Your task to perform on an android device: open app "Paramount+ | Peak Streaming" Image 0: 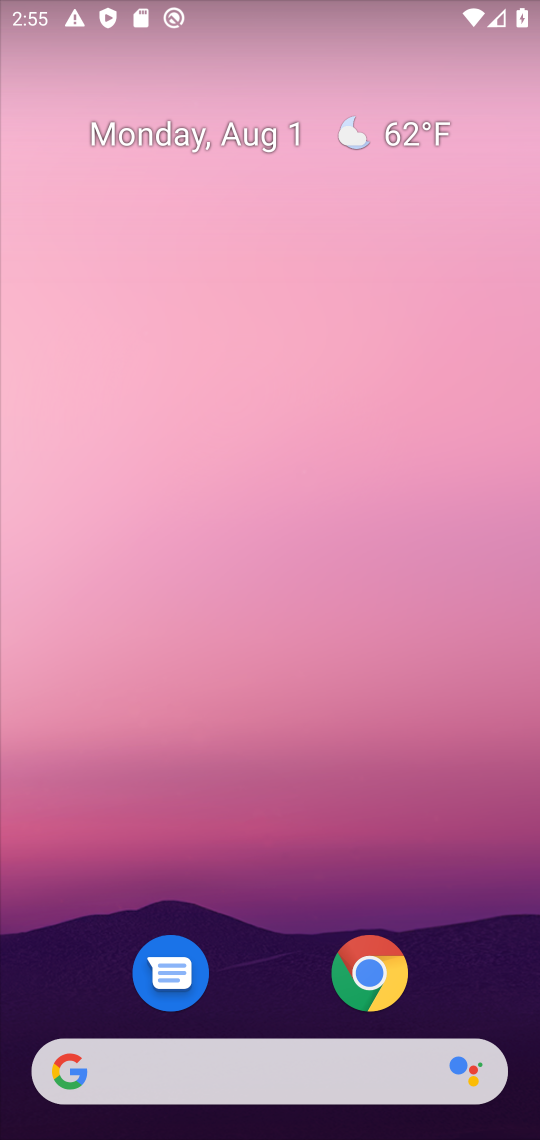
Step 0: drag from (250, 825) to (300, 201)
Your task to perform on an android device: open app "Paramount+ | Peak Streaming" Image 1: 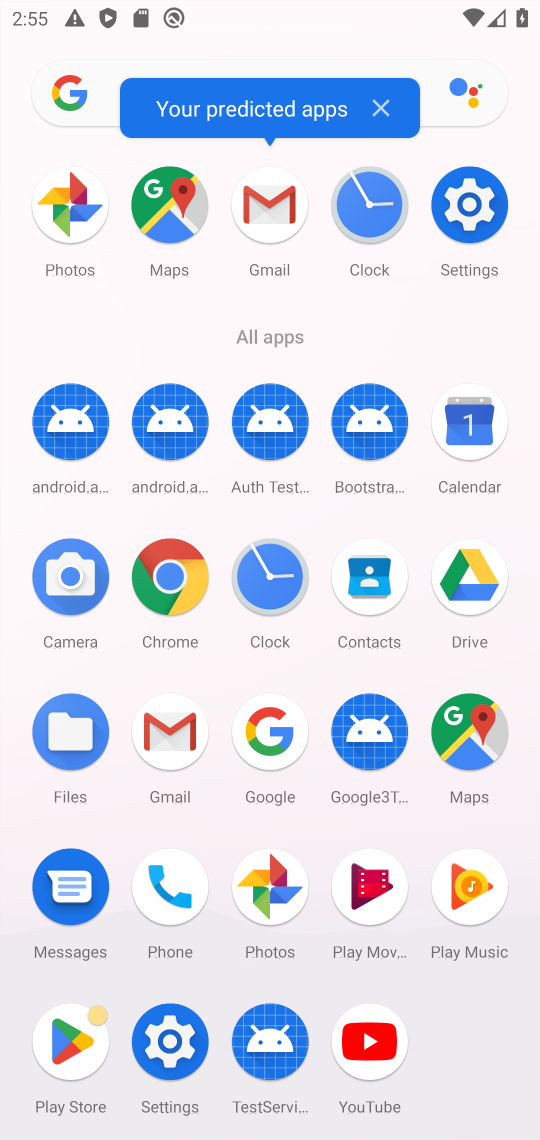
Step 1: click (70, 1036)
Your task to perform on an android device: open app "Paramount+ | Peak Streaming" Image 2: 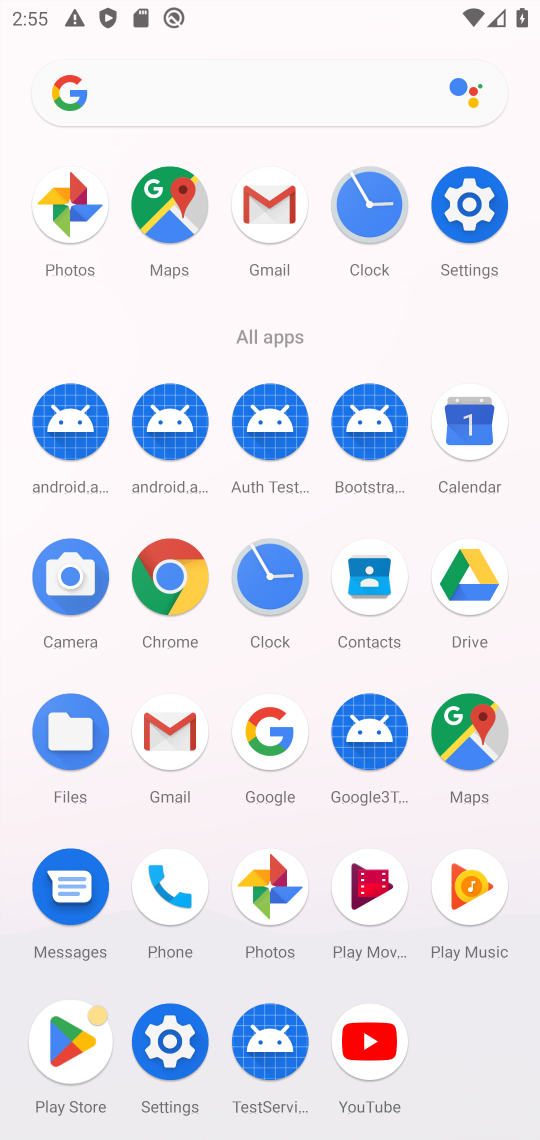
Step 2: click (71, 1038)
Your task to perform on an android device: open app "Paramount+ | Peak Streaming" Image 3: 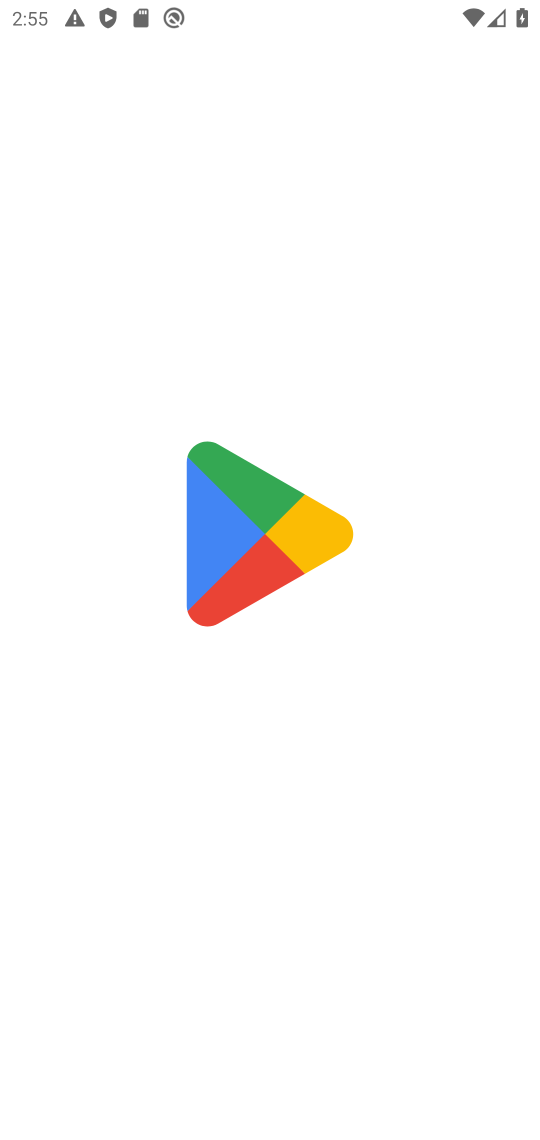
Step 3: click (67, 1041)
Your task to perform on an android device: open app "Paramount+ | Peak Streaming" Image 4: 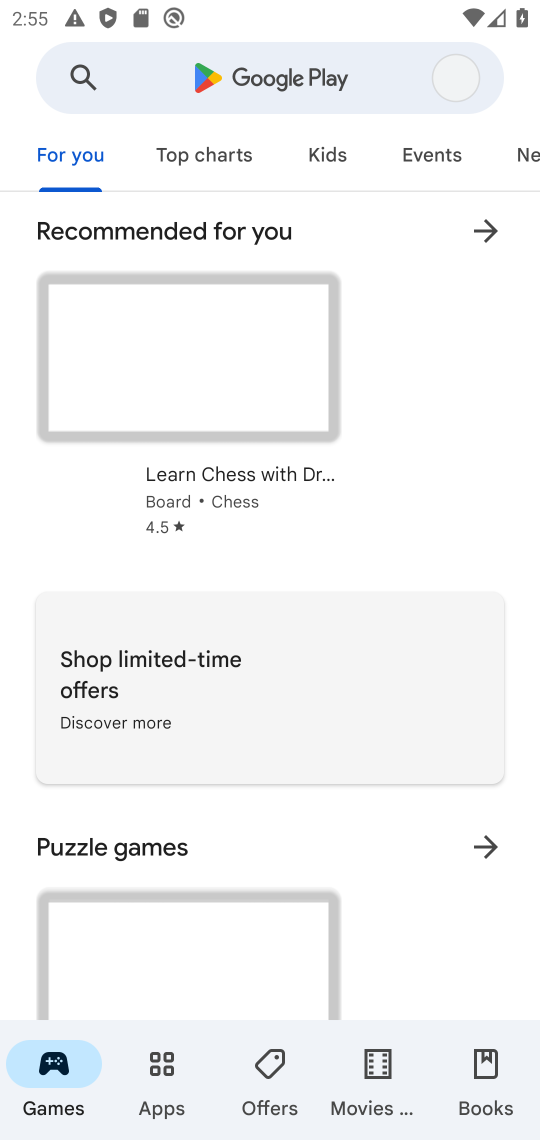
Step 4: click (197, 69)
Your task to perform on an android device: open app "Paramount+ | Peak Streaming" Image 5: 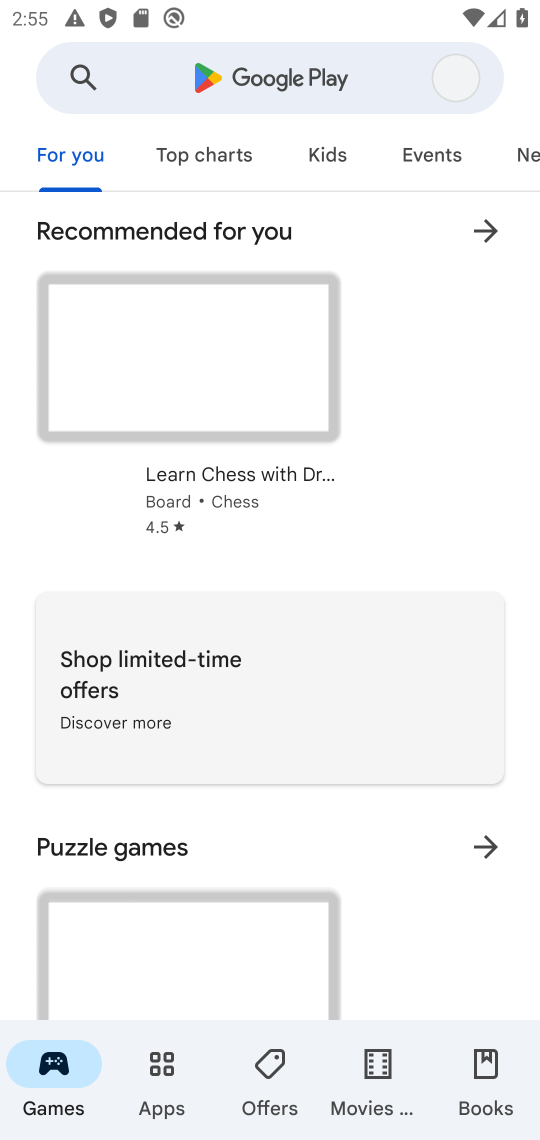
Step 5: click (197, 71)
Your task to perform on an android device: open app "Paramount+ | Peak Streaming" Image 6: 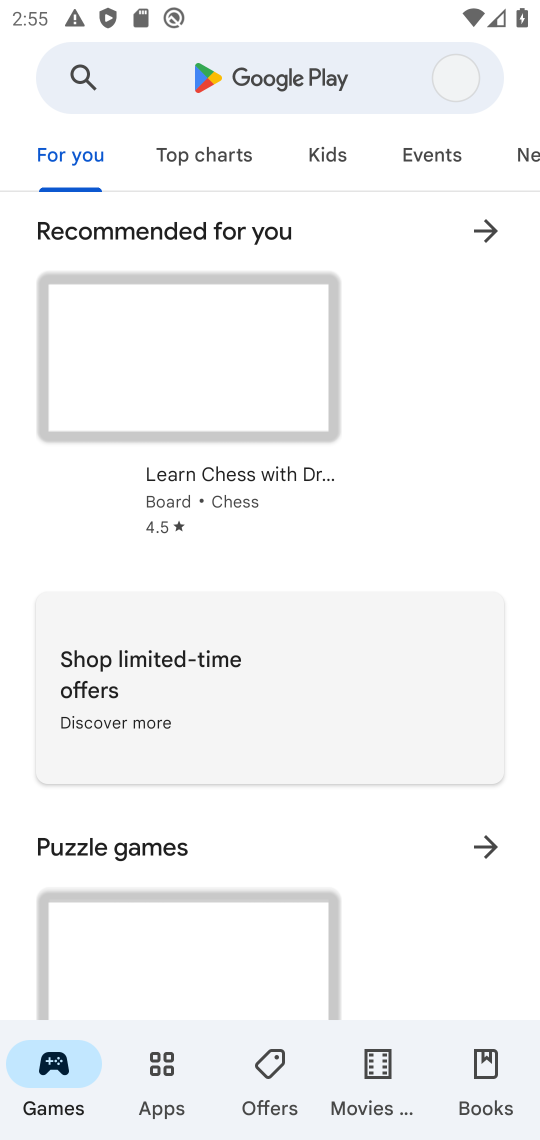
Step 6: click (205, 72)
Your task to perform on an android device: open app "Paramount+ | Peak Streaming" Image 7: 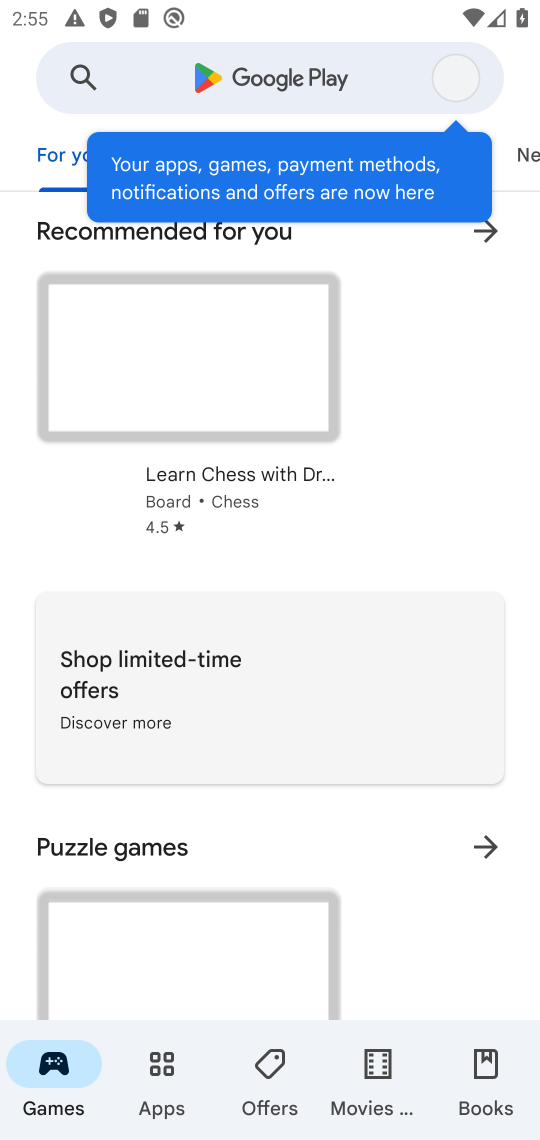
Step 7: click (214, 65)
Your task to perform on an android device: open app "Paramount+ | Peak Streaming" Image 8: 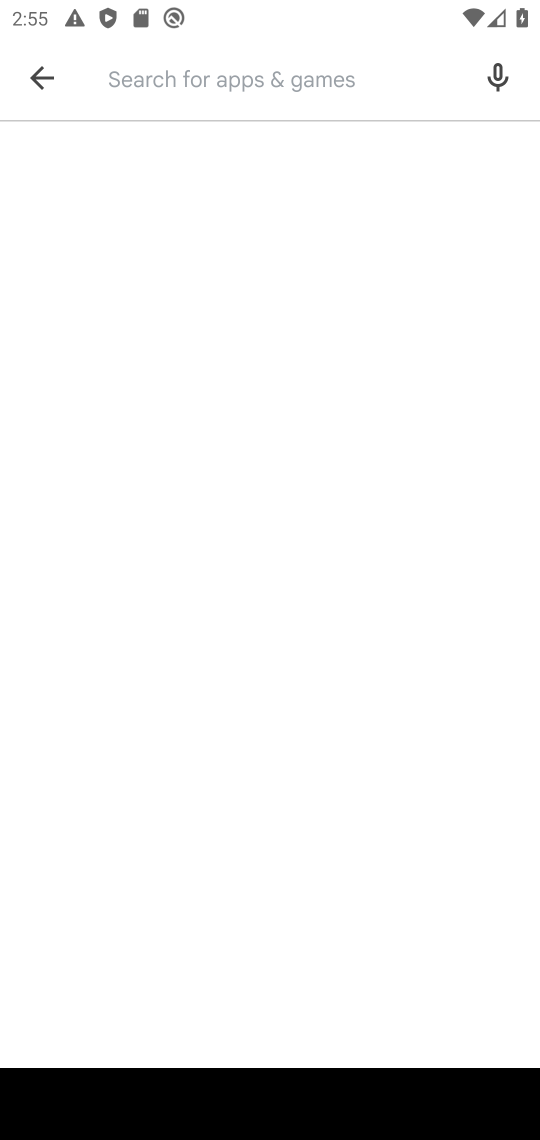
Step 8: type "paramount"
Your task to perform on an android device: open app "Paramount+ | Peak Streaming" Image 9: 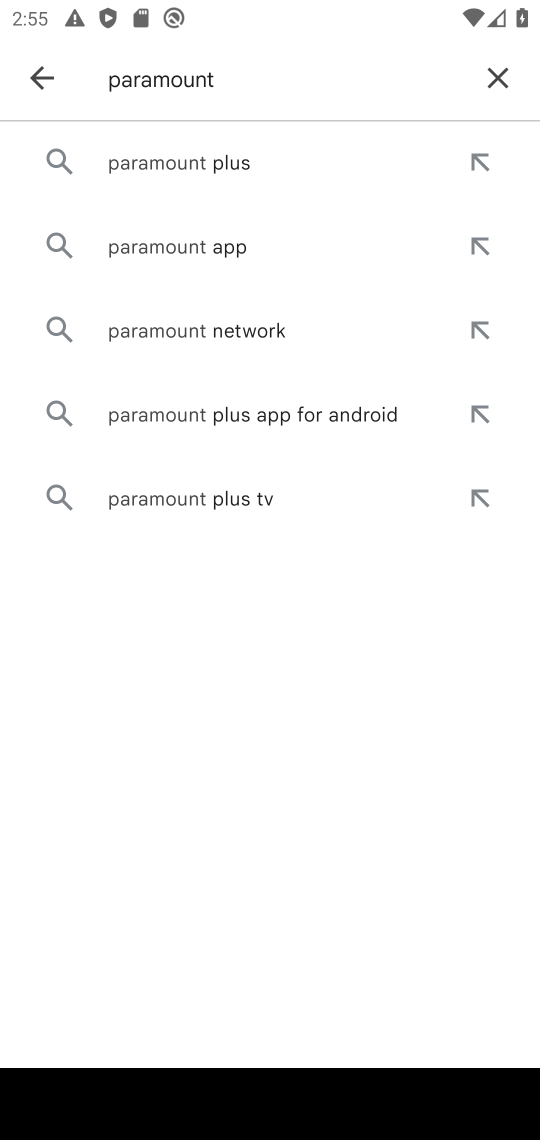
Step 9: click (175, 159)
Your task to perform on an android device: open app "Paramount+ | Peak Streaming" Image 10: 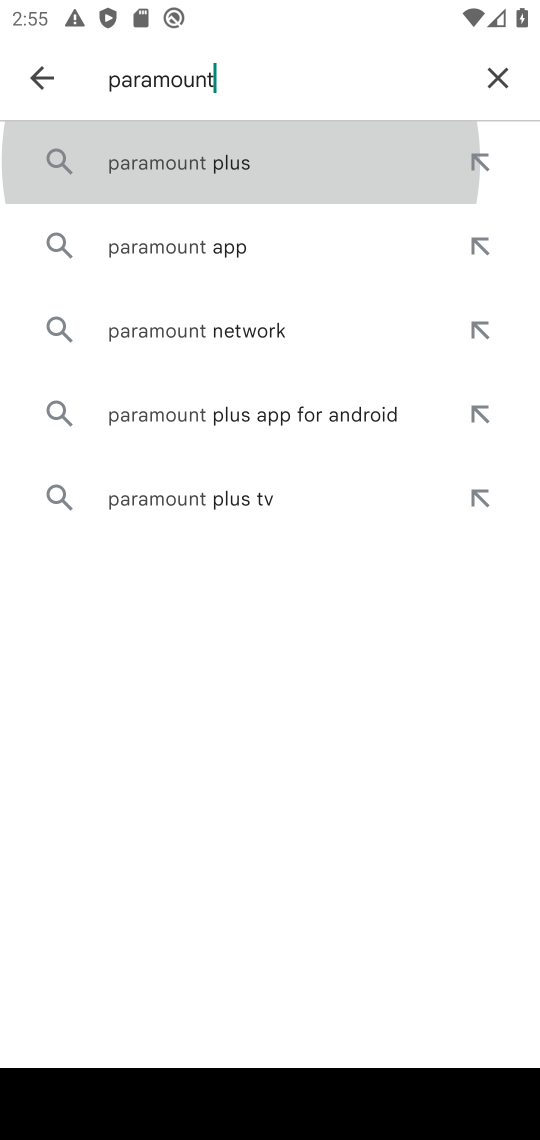
Step 10: click (176, 160)
Your task to perform on an android device: open app "Paramount+ | Peak Streaming" Image 11: 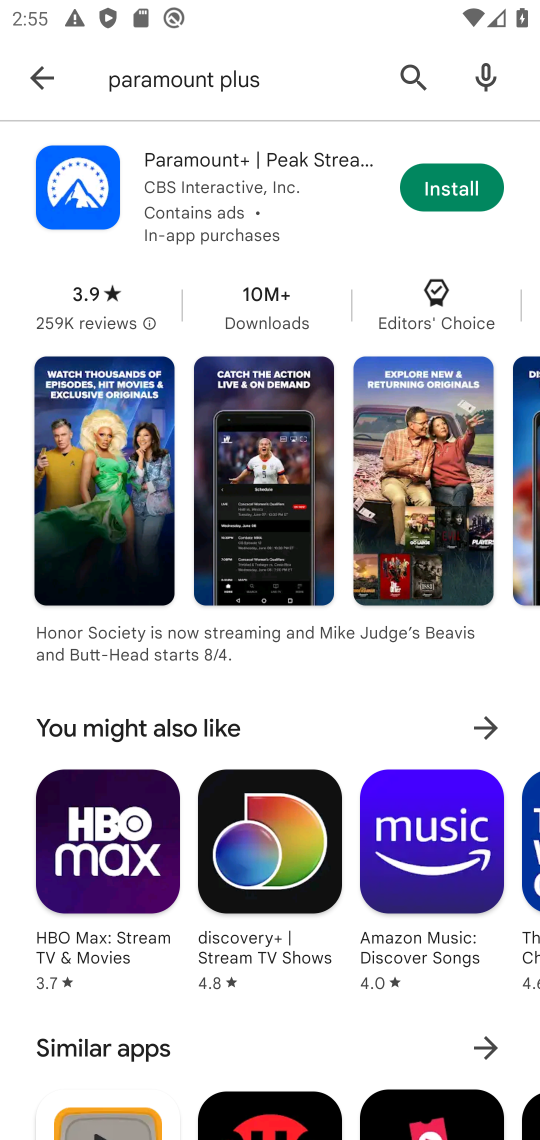
Step 11: click (436, 183)
Your task to perform on an android device: open app "Paramount+ | Peak Streaming" Image 12: 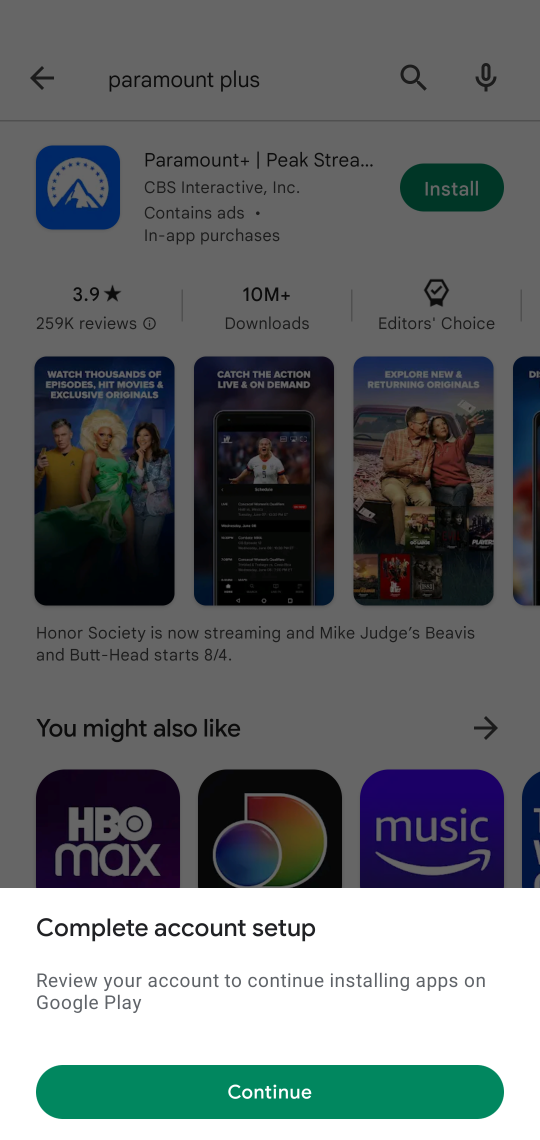
Step 12: click (331, 1093)
Your task to perform on an android device: open app "Paramount+ | Peak Streaming" Image 13: 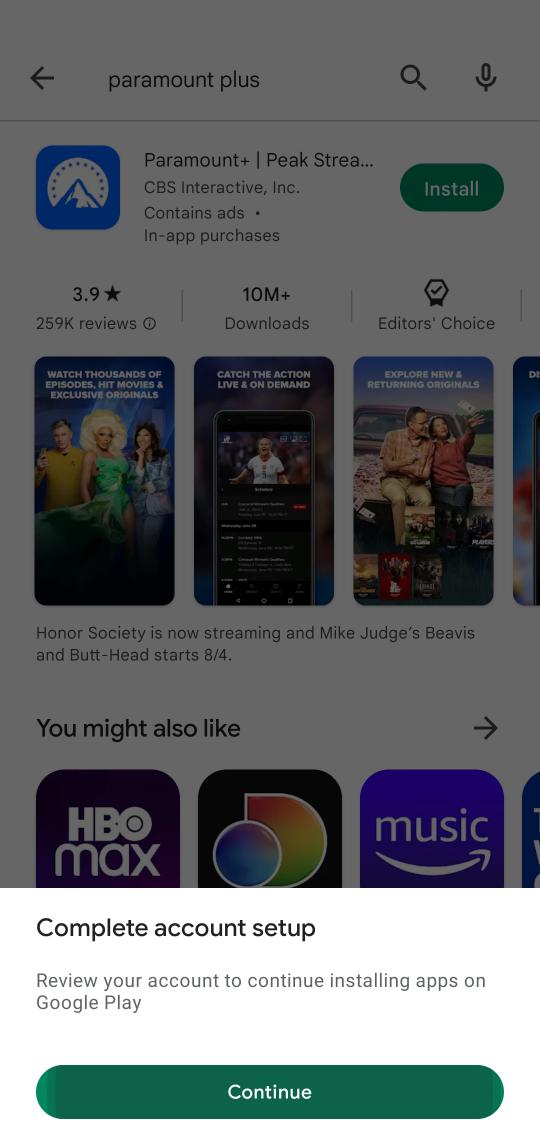
Step 13: click (331, 1093)
Your task to perform on an android device: open app "Paramount+ | Peak Streaming" Image 14: 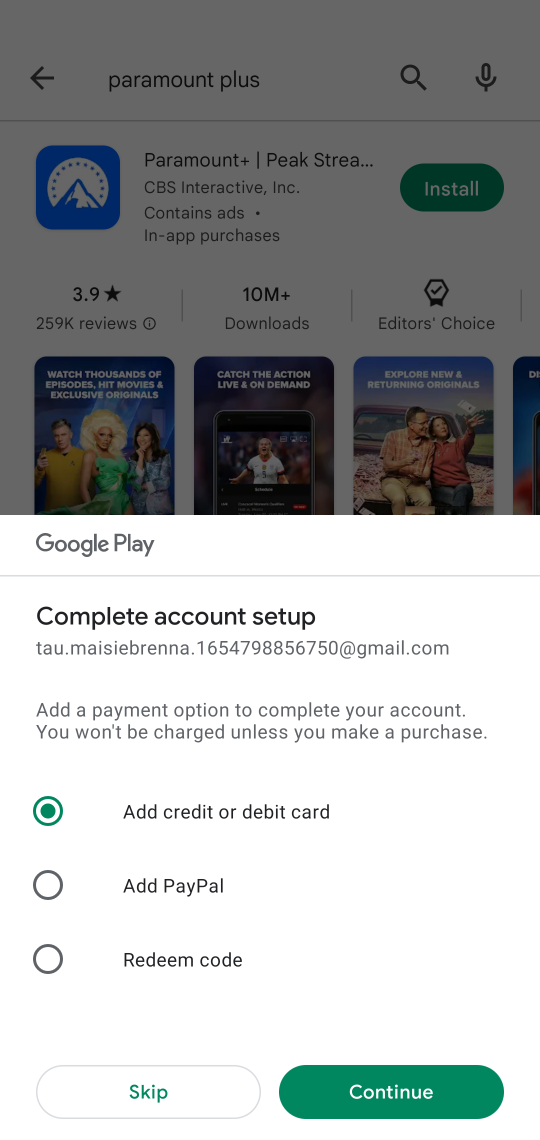
Step 14: click (162, 1074)
Your task to perform on an android device: open app "Paramount+ | Peak Streaming" Image 15: 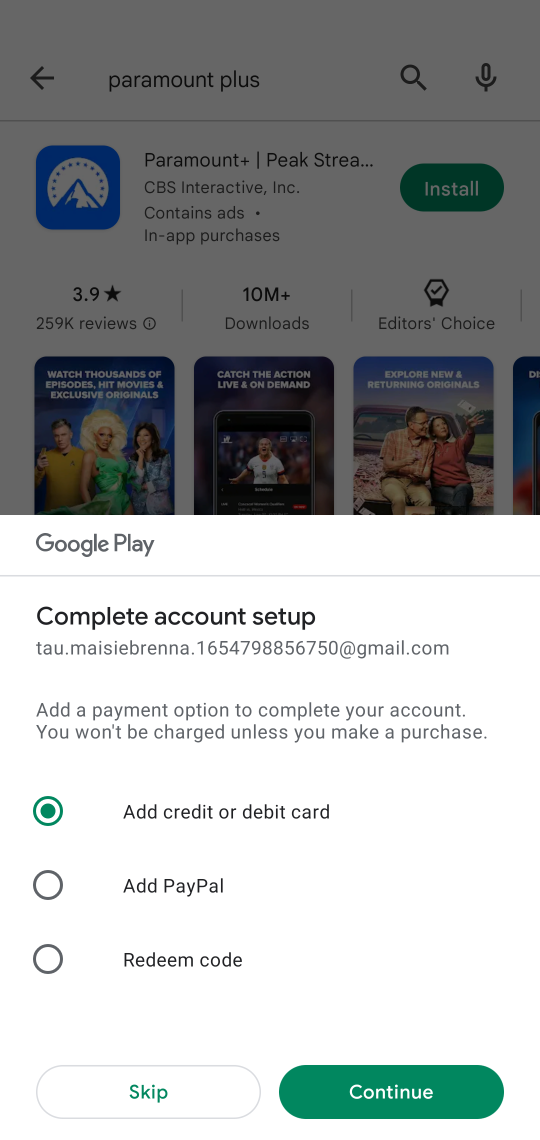
Step 15: click (172, 1078)
Your task to perform on an android device: open app "Paramount+ | Peak Streaming" Image 16: 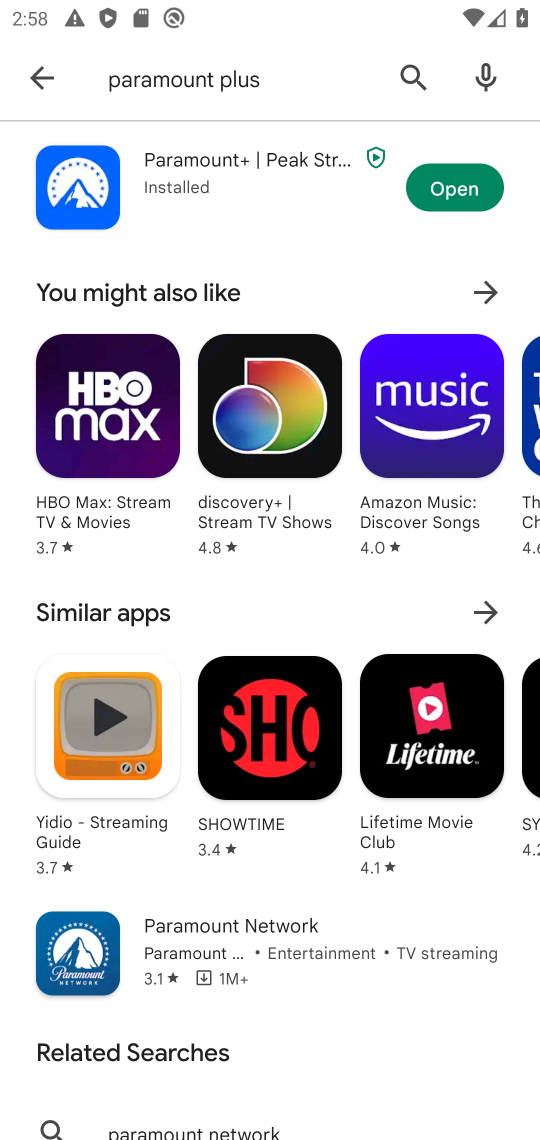
Step 16: click (466, 192)
Your task to perform on an android device: open app "Paramount+ | Peak Streaming" Image 17: 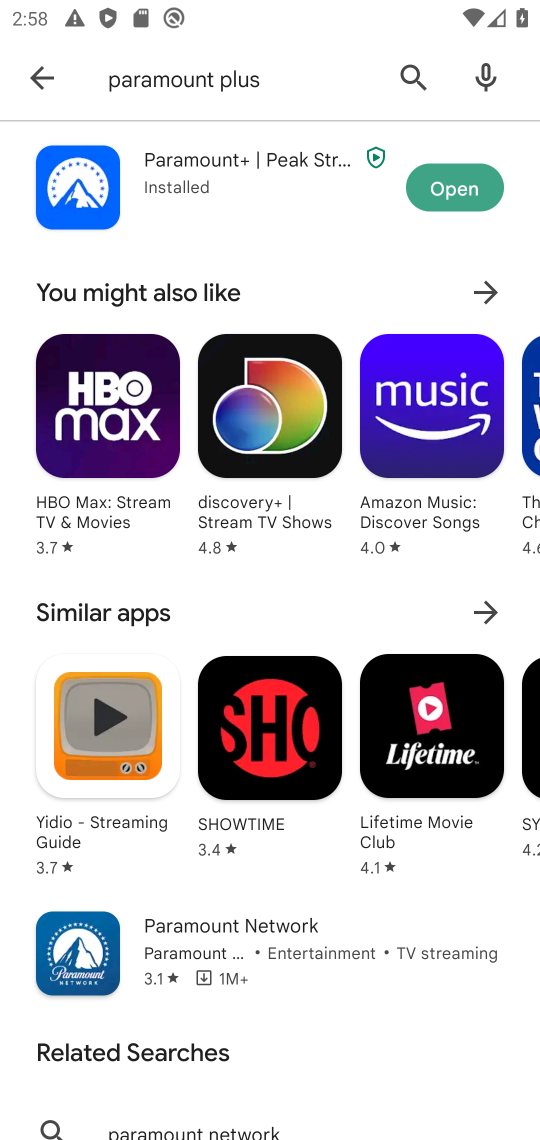
Step 17: click (464, 187)
Your task to perform on an android device: open app "Paramount+ | Peak Streaming" Image 18: 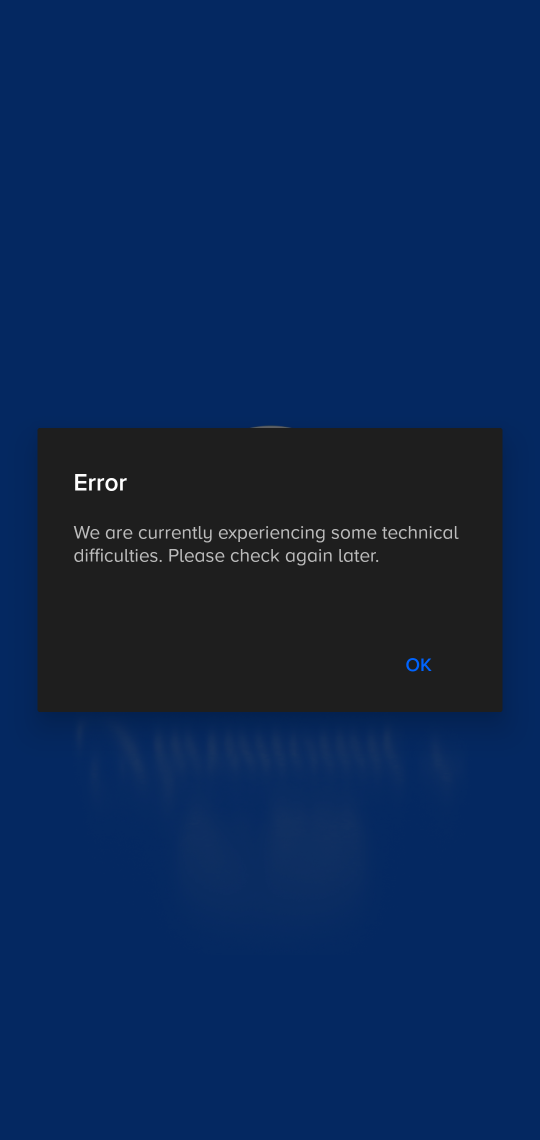
Step 18: click (421, 650)
Your task to perform on an android device: open app "Paramount+ | Peak Streaming" Image 19: 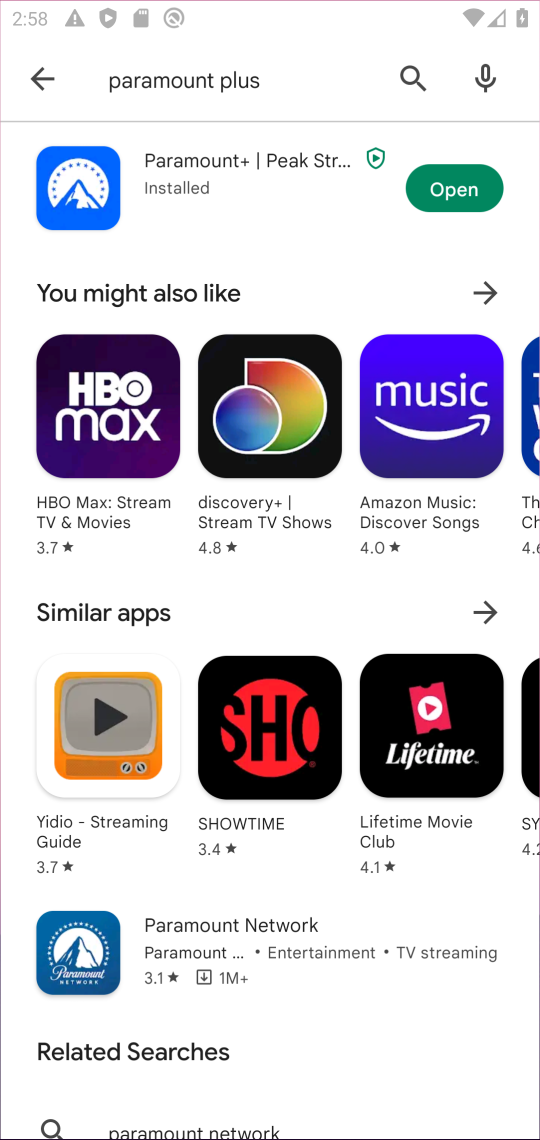
Step 19: task complete